Your task to perform on an android device: Do I have any events tomorrow? Image 0: 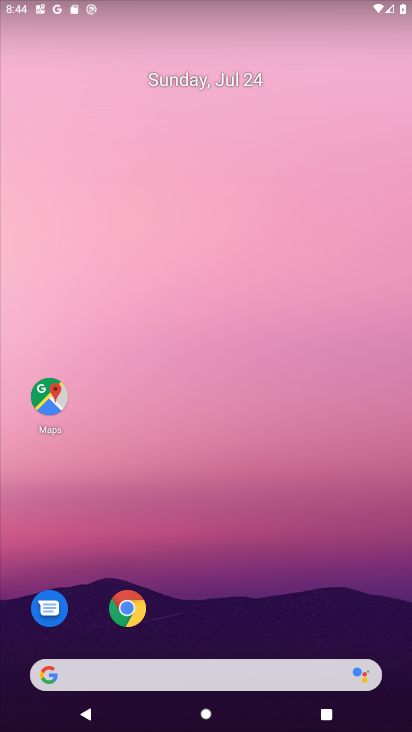
Step 0: click (196, 85)
Your task to perform on an android device: Do I have any events tomorrow? Image 1: 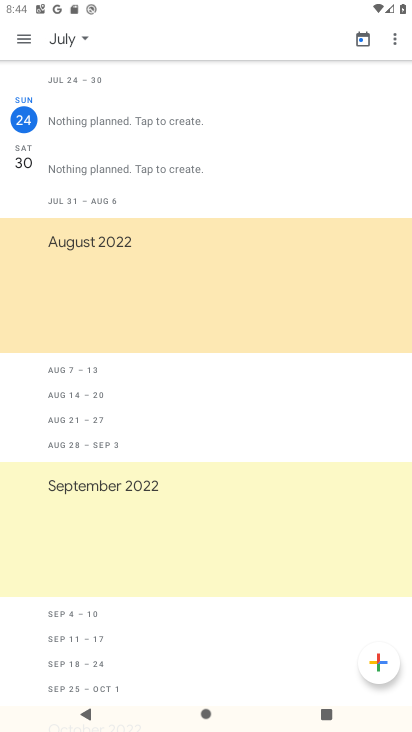
Step 1: click (83, 43)
Your task to perform on an android device: Do I have any events tomorrow? Image 2: 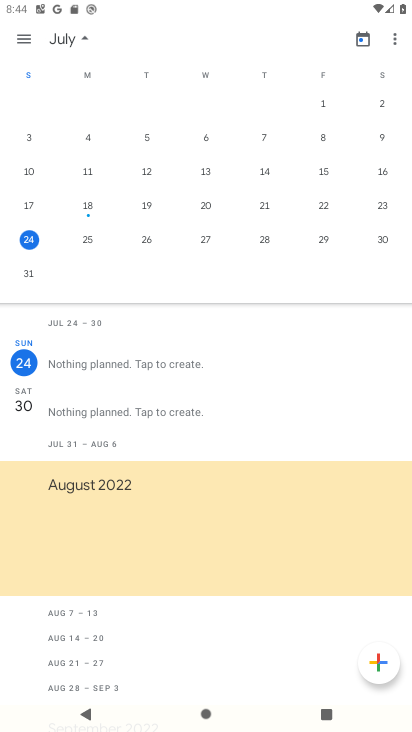
Step 2: click (92, 240)
Your task to perform on an android device: Do I have any events tomorrow? Image 3: 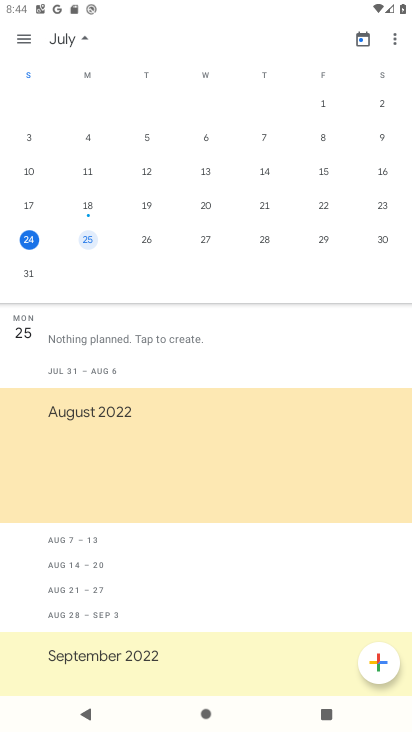
Step 3: task complete